Your task to perform on an android device: Look up the best rated 3d printer on Ali Express Image 0: 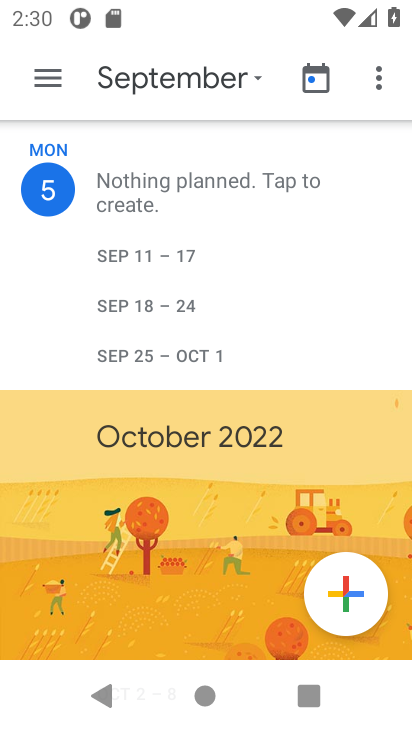
Step 0: press back button
Your task to perform on an android device: Look up the best rated 3d printer on Ali Express Image 1: 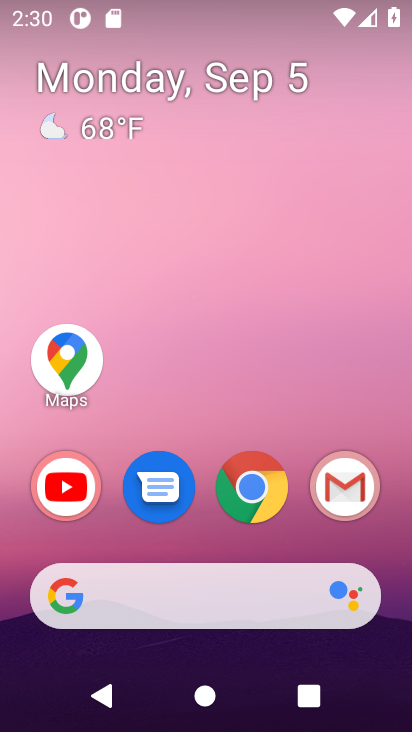
Step 1: click (244, 499)
Your task to perform on an android device: Look up the best rated 3d printer on Ali Express Image 2: 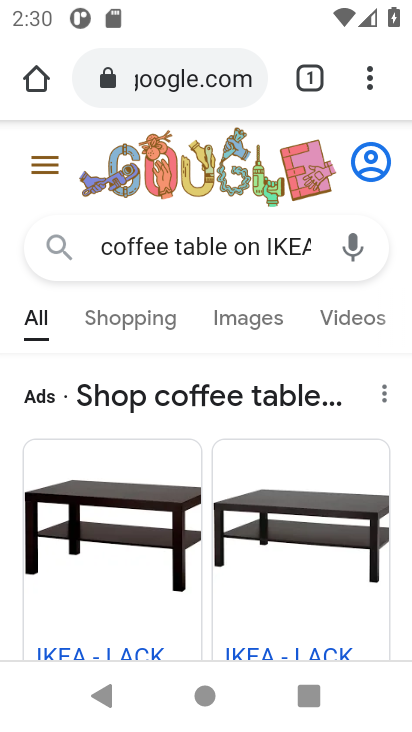
Step 2: click (206, 62)
Your task to perform on an android device: Look up the best rated 3d printer on Ali Express Image 3: 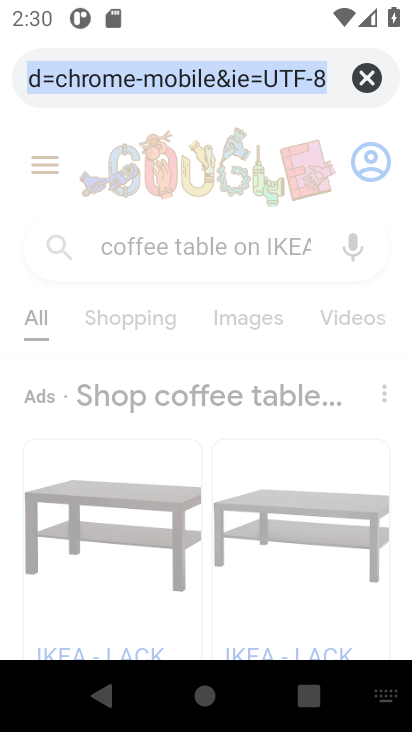
Step 3: click (366, 69)
Your task to perform on an android device: Look up the best rated 3d printer on Ali Express Image 4: 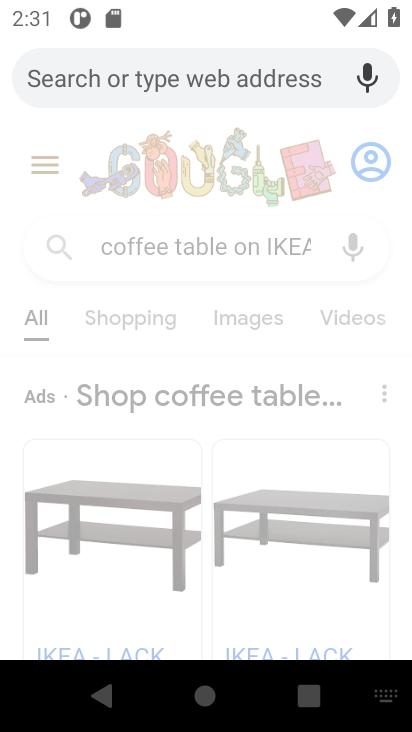
Step 4: type "the best rated 3d printer on Ali Express"
Your task to perform on an android device: Look up the best rated 3d printer on Ali Express Image 5: 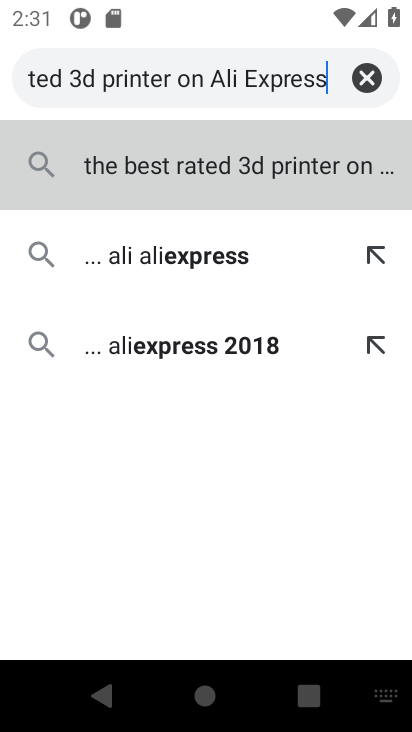
Step 5: click (247, 166)
Your task to perform on an android device: Look up the best rated 3d printer on Ali Express Image 6: 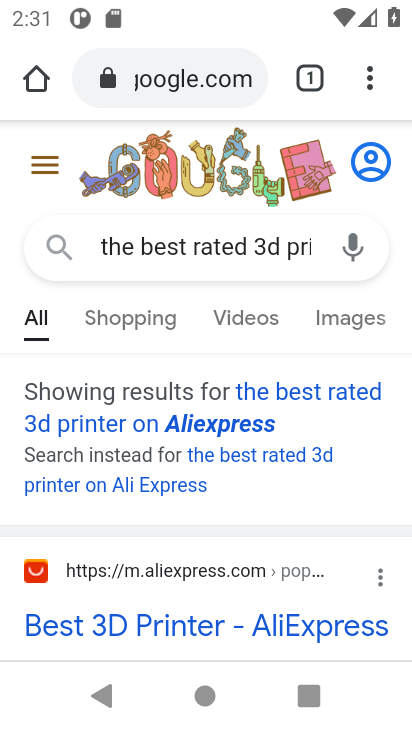
Step 6: task complete